Your task to perform on an android device: Go to battery settings Image 0: 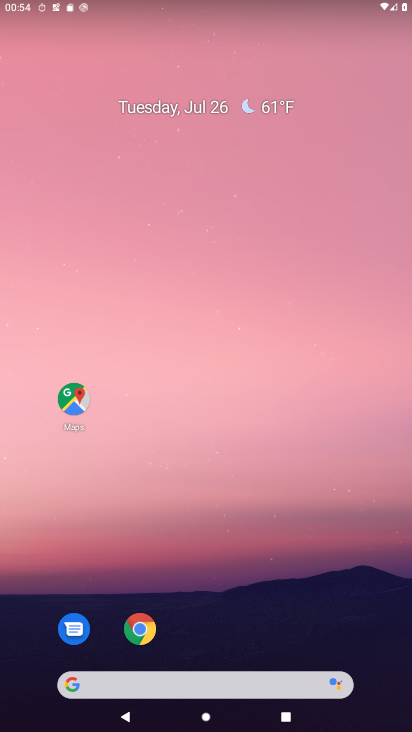
Step 0: drag from (200, 635) to (210, 224)
Your task to perform on an android device: Go to battery settings Image 1: 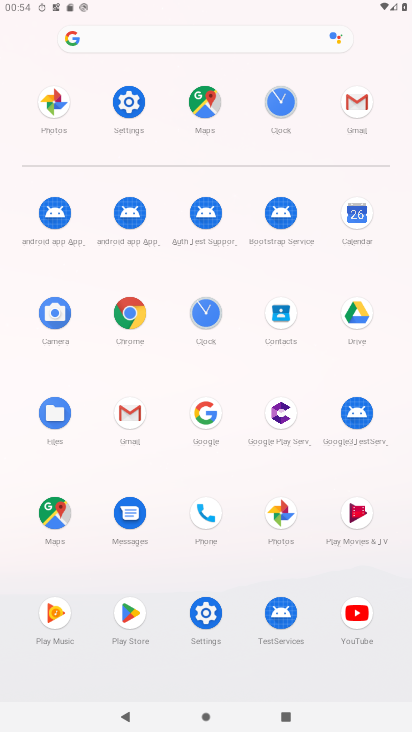
Step 1: click (131, 107)
Your task to perform on an android device: Go to battery settings Image 2: 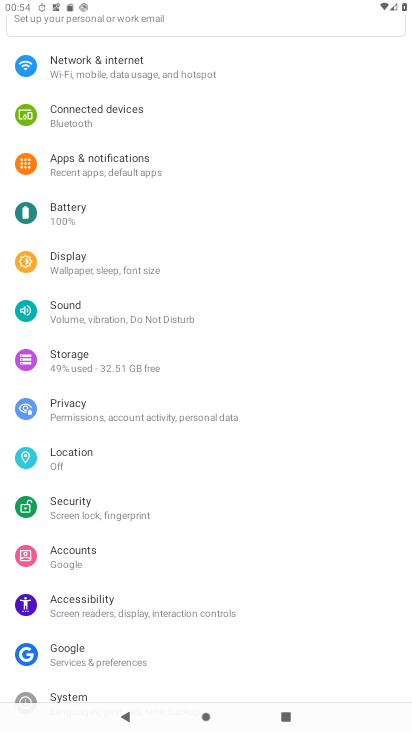
Step 2: click (120, 220)
Your task to perform on an android device: Go to battery settings Image 3: 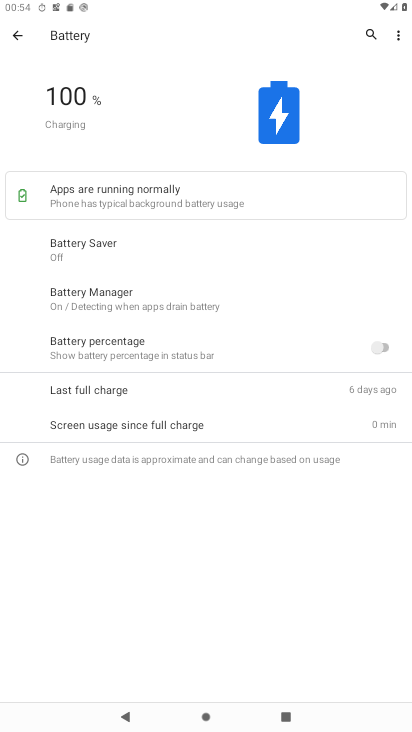
Step 3: task complete